Your task to perform on an android device: turn off javascript in the chrome app Image 0: 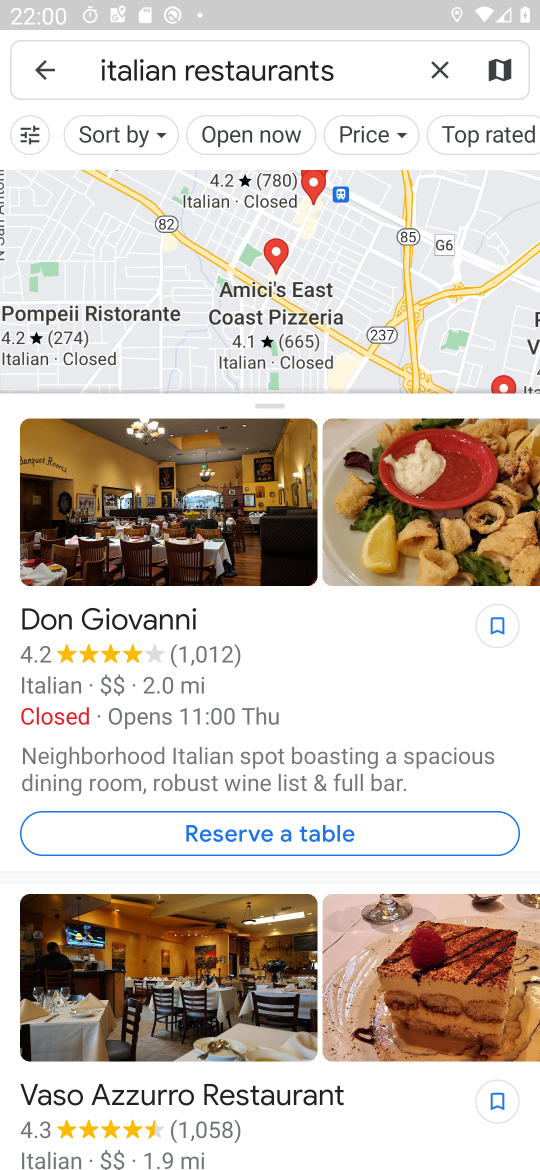
Step 0: press home button
Your task to perform on an android device: turn off javascript in the chrome app Image 1: 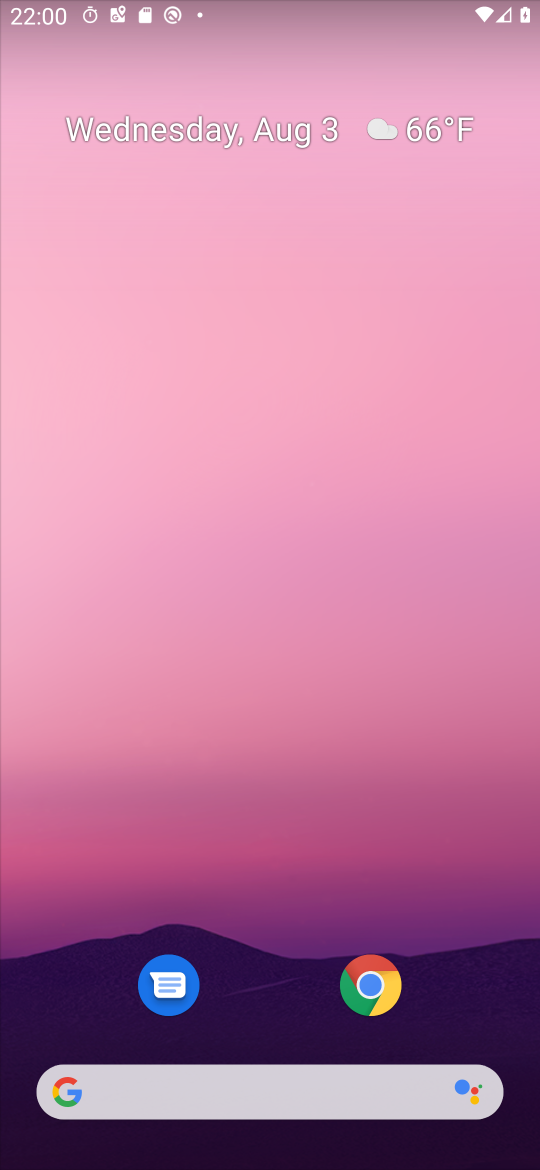
Step 1: click (350, 953)
Your task to perform on an android device: turn off javascript in the chrome app Image 2: 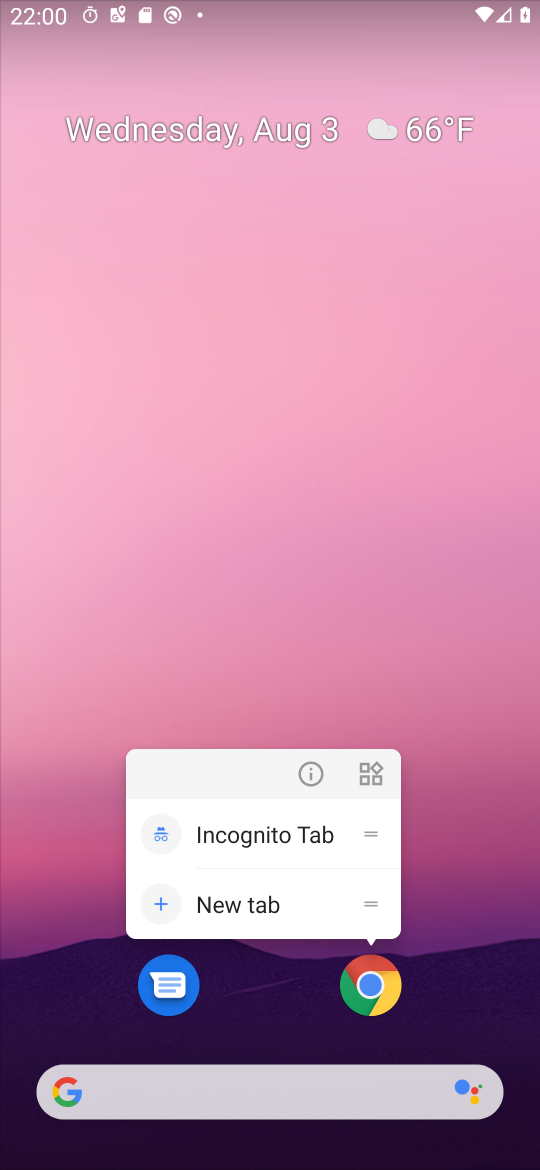
Step 2: click (385, 957)
Your task to perform on an android device: turn off javascript in the chrome app Image 3: 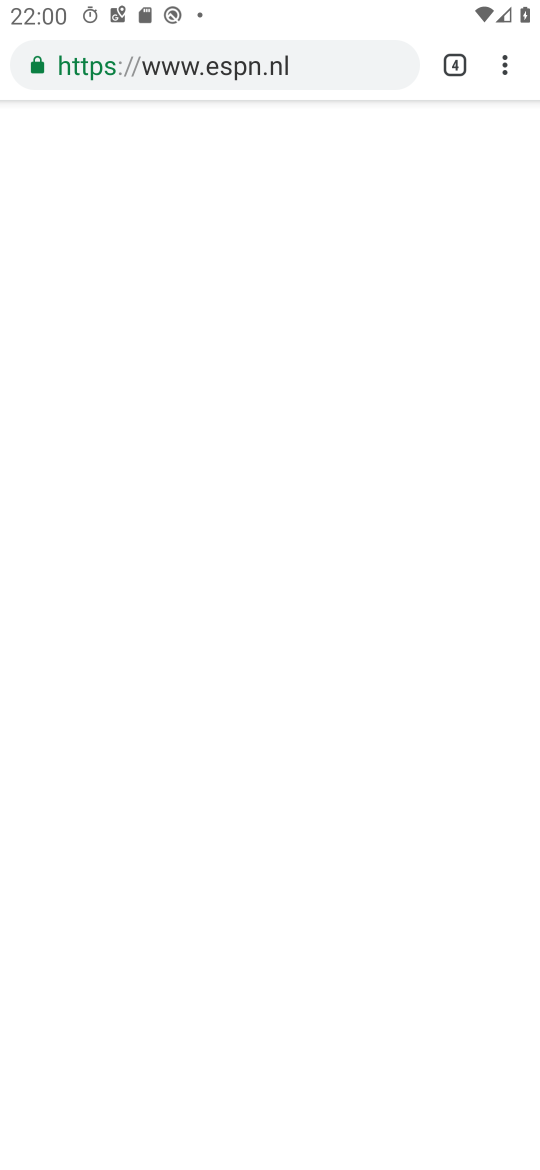
Step 3: click (513, 69)
Your task to perform on an android device: turn off javascript in the chrome app Image 4: 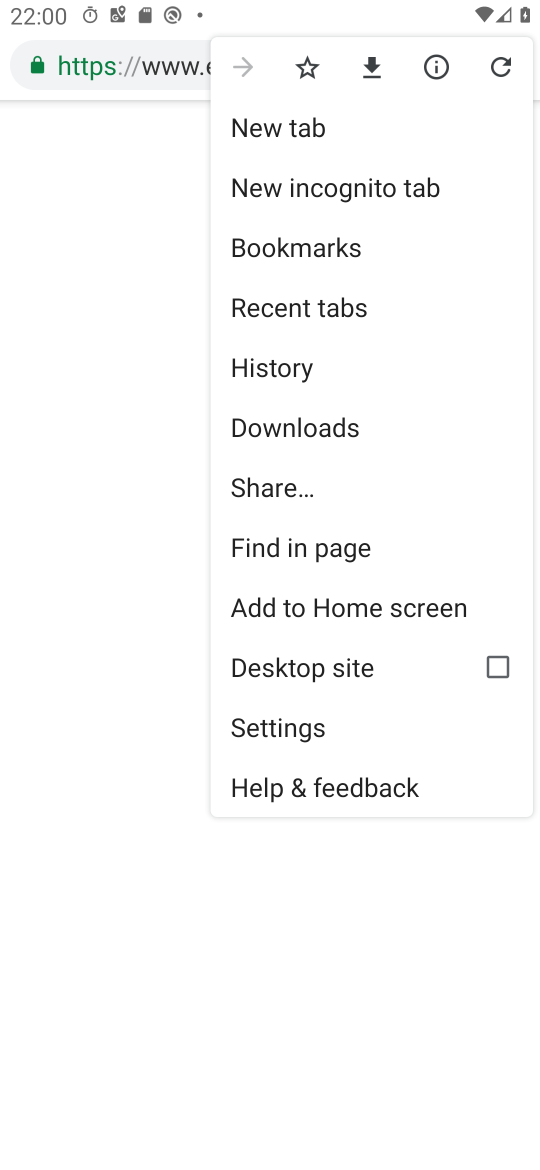
Step 4: click (341, 720)
Your task to perform on an android device: turn off javascript in the chrome app Image 5: 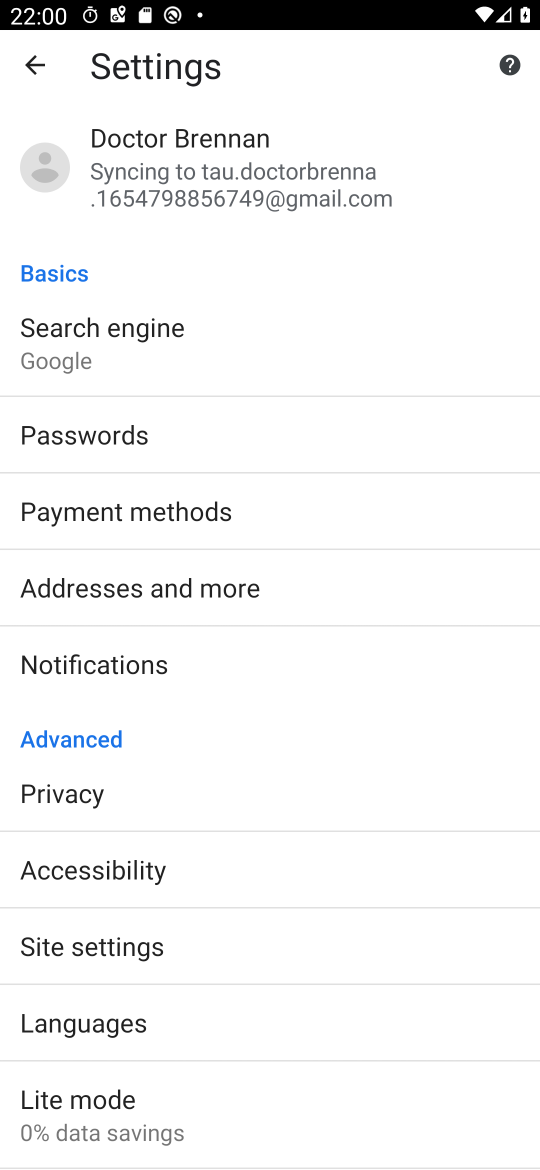
Step 5: click (174, 926)
Your task to perform on an android device: turn off javascript in the chrome app Image 6: 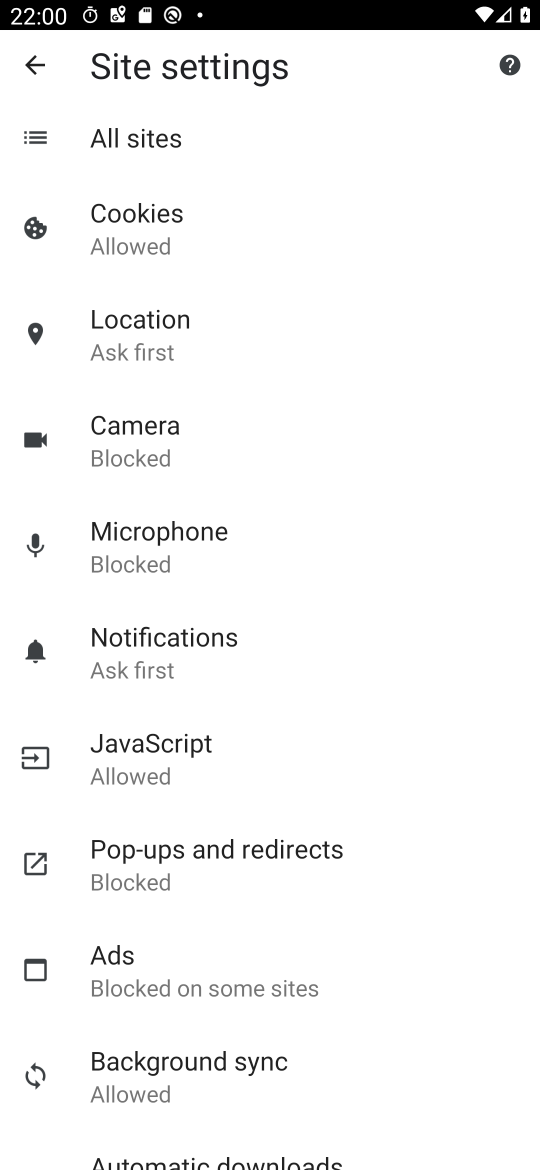
Step 6: click (259, 733)
Your task to perform on an android device: turn off javascript in the chrome app Image 7: 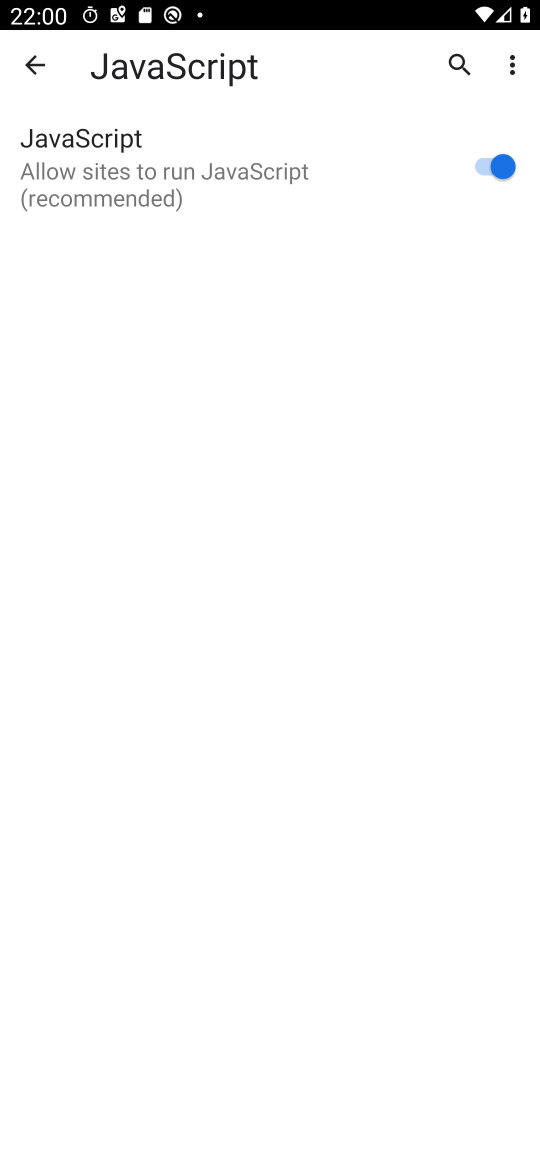
Step 7: click (474, 173)
Your task to perform on an android device: turn off javascript in the chrome app Image 8: 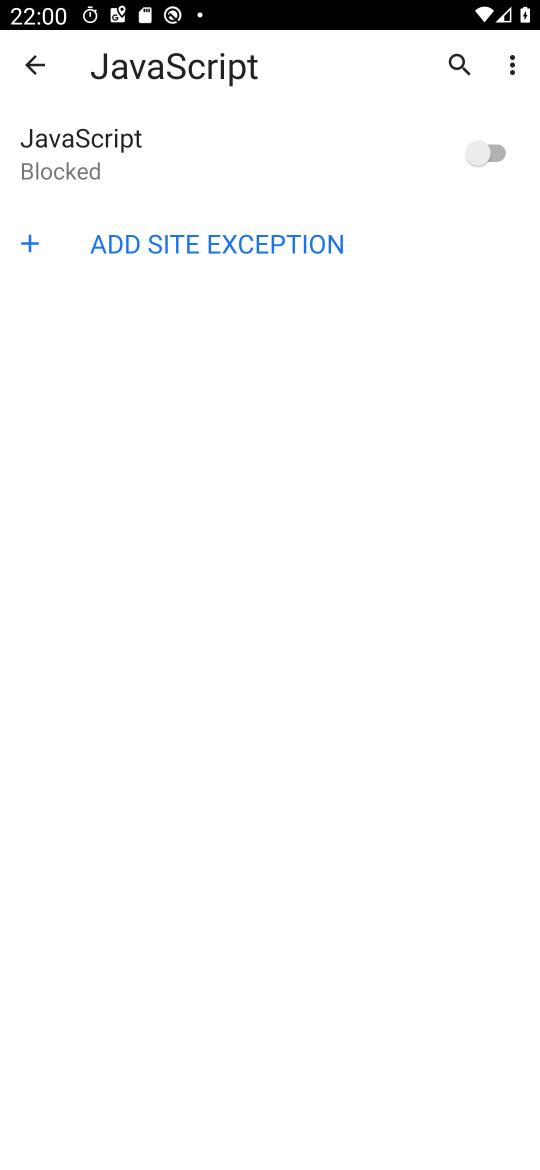
Step 8: task complete